Your task to perform on an android device: Go to privacy settings Image 0: 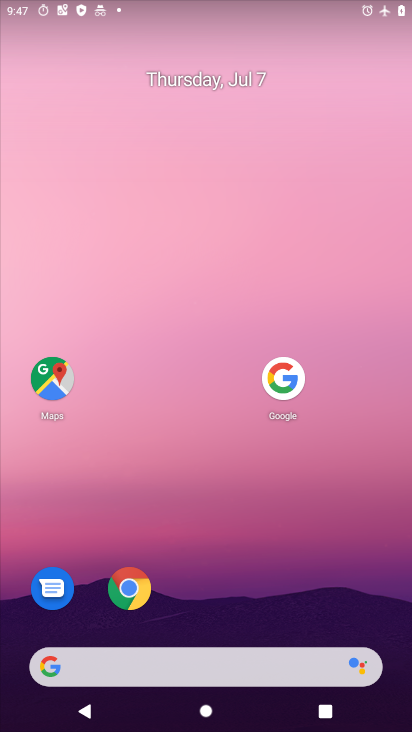
Step 0: drag from (200, 654) to (342, 48)
Your task to perform on an android device: Go to privacy settings Image 1: 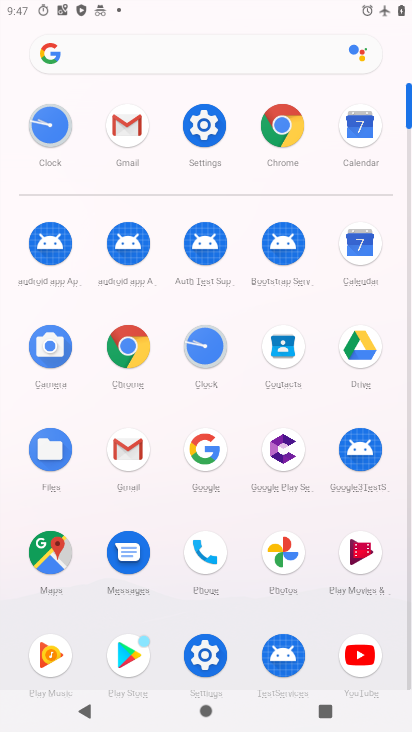
Step 1: click (198, 116)
Your task to perform on an android device: Go to privacy settings Image 2: 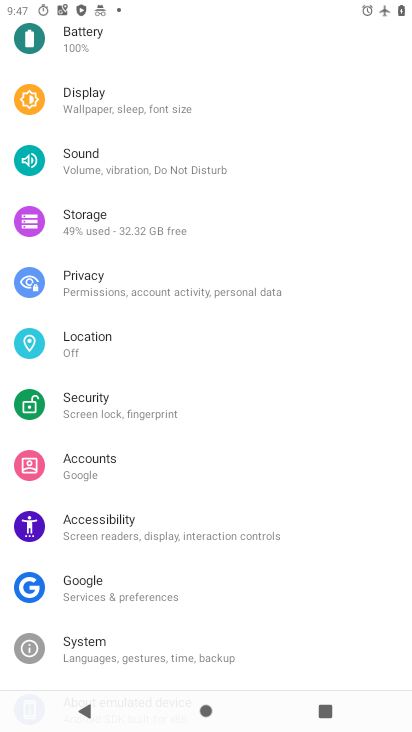
Step 2: click (127, 284)
Your task to perform on an android device: Go to privacy settings Image 3: 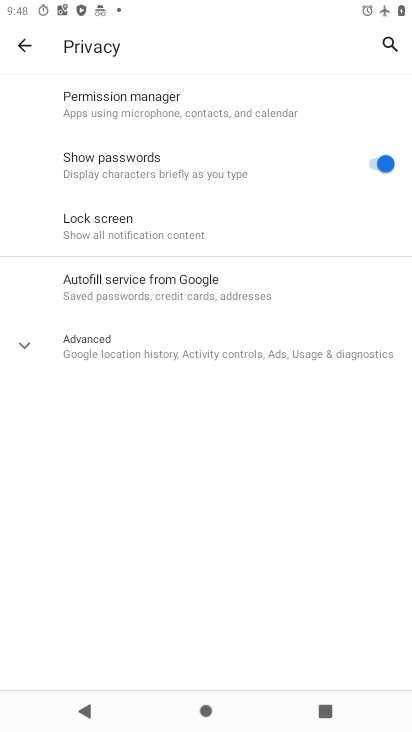
Step 3: task complete